Your task to perform on an android device: toggle pop-ups in chrome Image 0: 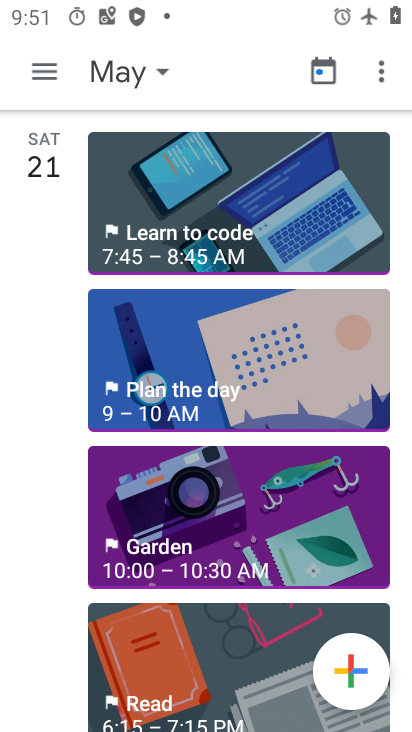
Step 0: press home button
Your task to perform on an android device: toggle pop-ups in chrome Image 1: 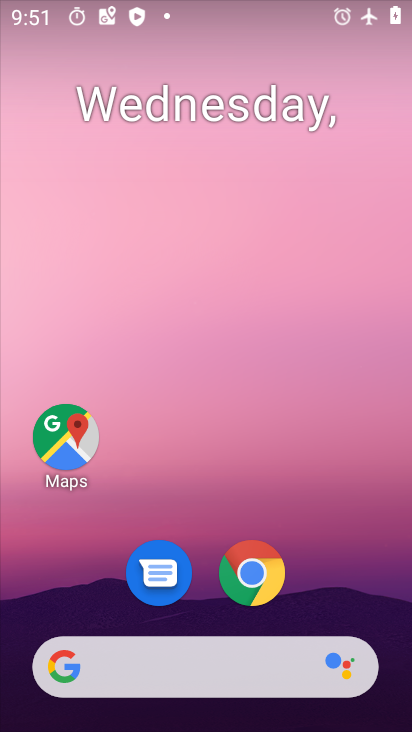
Step 1: drag from (320, 614) to (309, 217)
Your task to perform on an android device: toggle pop-ups in chrome Image 2: 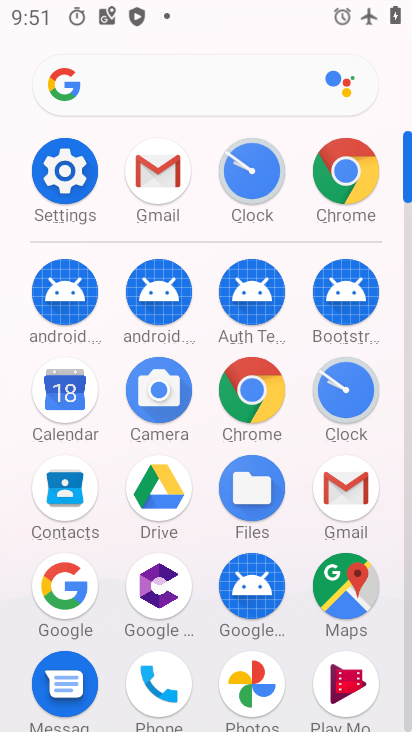
Step 2: click (350, 206)
Your task to perform on an android device: toggle pop-ups in chrome Image 3: 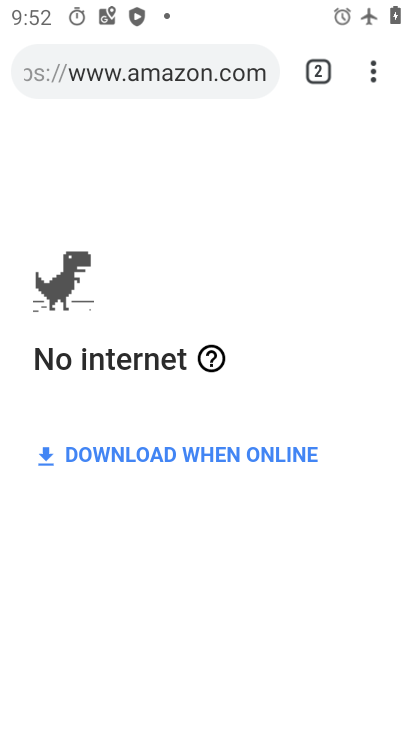
Step 3: click (375, 79)
Your task to perform on an android device: toggle pop-ups in chrome Image 4: 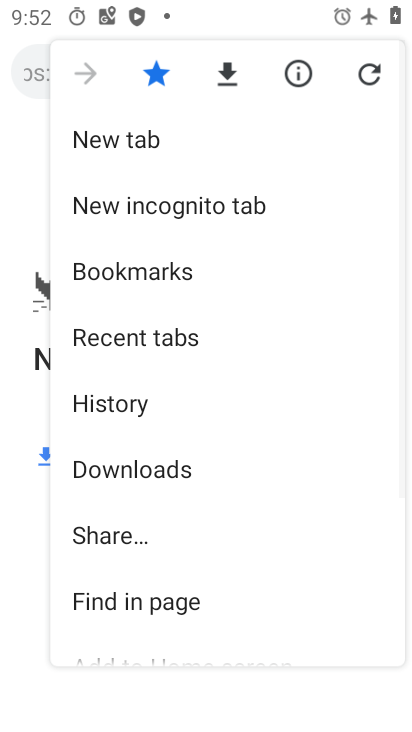
Step 4: drag from (246, 520) to (273, 275)
Your task to perform on an android device: toggle pop-ups in chrome Image 5: 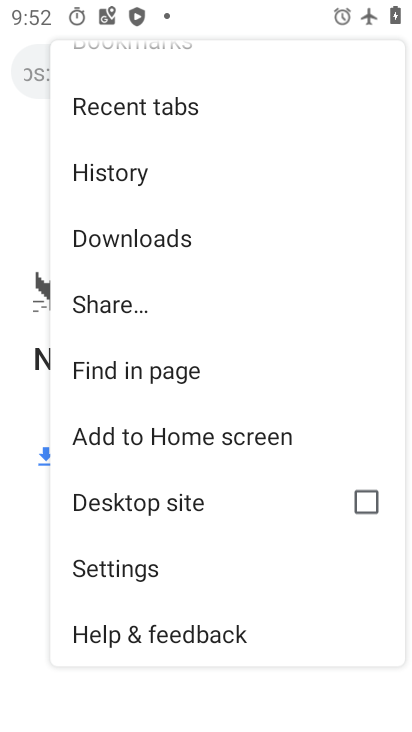
Step 5: click (160, 576)
Your task to perform on an android device: toggle pop-ups in chrome Image 6: 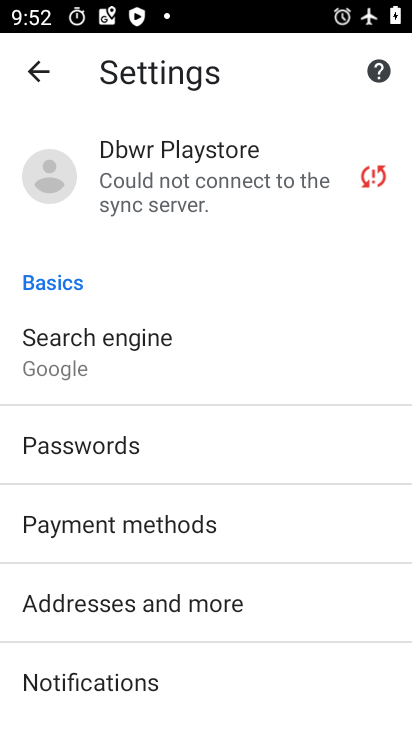
Step 6: drag from (154, 652) to (183, 403)
Your task to perform on an android device: toggle pop-ups in chrome Image 7: 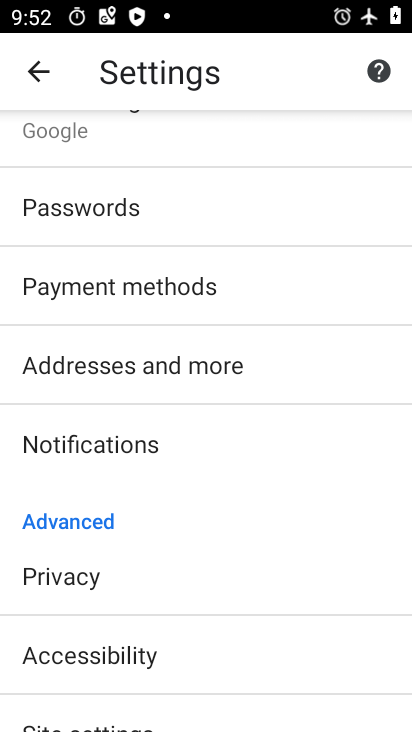
Step 7: drag from (147, 660) to (143, 406)
Your task to perform on an android device: toggle pop-ups in chrome Image 8: 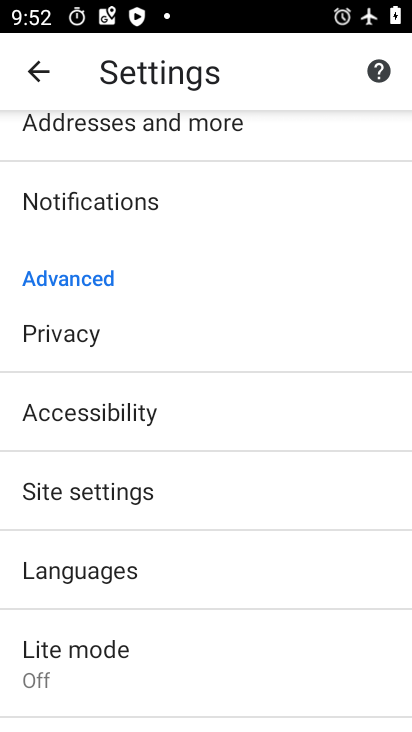
Step 8: click (163, 502)
Your task to perform on an android device: toggle pop-ups in chrome Image 9: 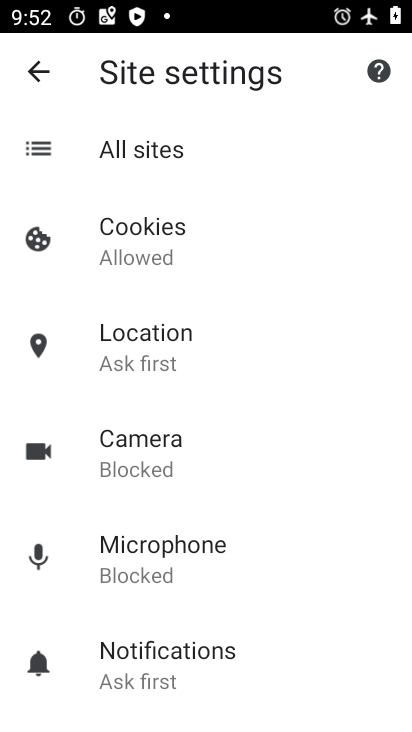
Step 9: drag from (197, 625) to (212, 470)
Your task to perform on an android device: toggle pop-ups in chrome Image 10: 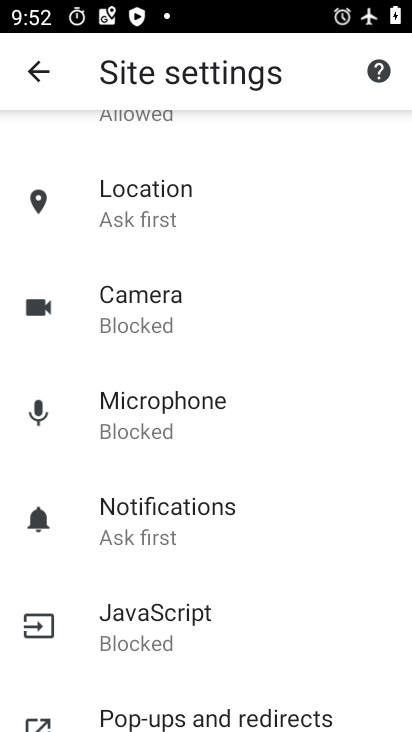
Step 10: drag from (200, 615) to (208, 446)
Your task to perform on an android device: toggle pop-ups in chrome Image 11: 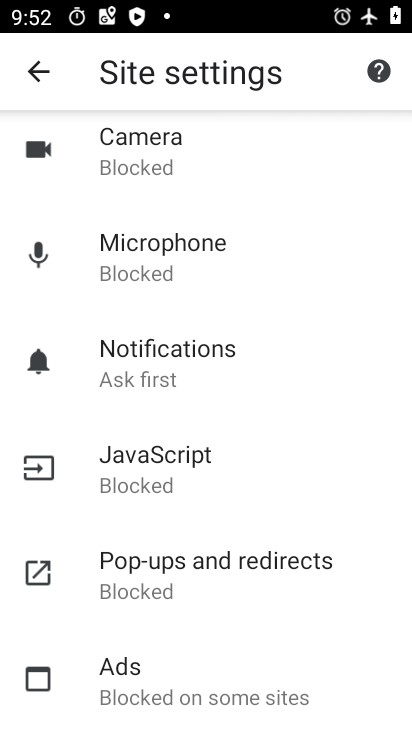
Step 11: click (220, 580)
Your task to perform on an android device: toggle pop-ups in chrome Image 12: 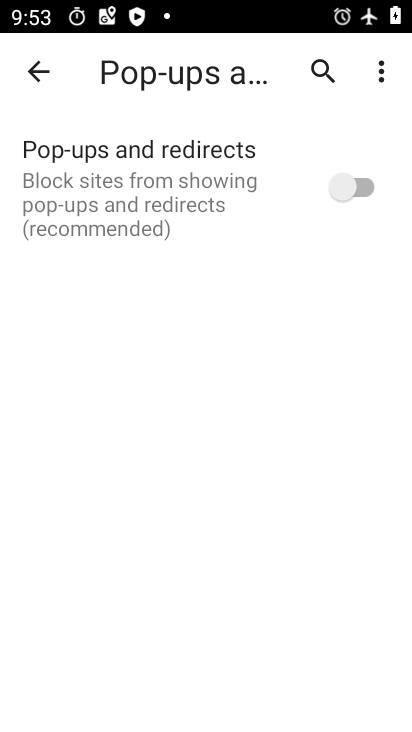
Step 12: click (310, 197)
Your task to perform on an android device: toggle pop-ups in chrome Image 13: 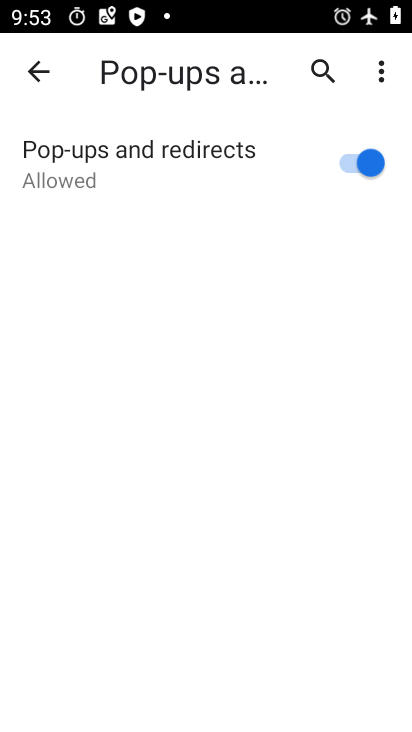
Step 13: task complete